Your task to perform on an android device: Go to internet settings Image 0: 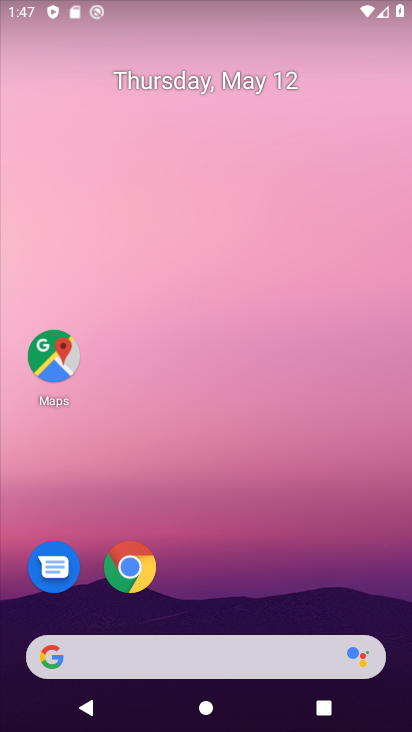
Step 0: drag from (207, 615) to (237, 255)
Your task to perform on an android device: Go to internet settings Image 1: 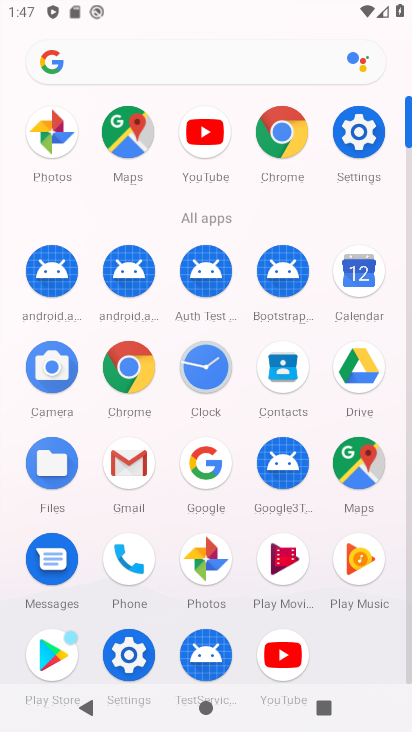
Step 1: click (350, 134)
Your task to perform on an android device: Go to internet settings Image 2: 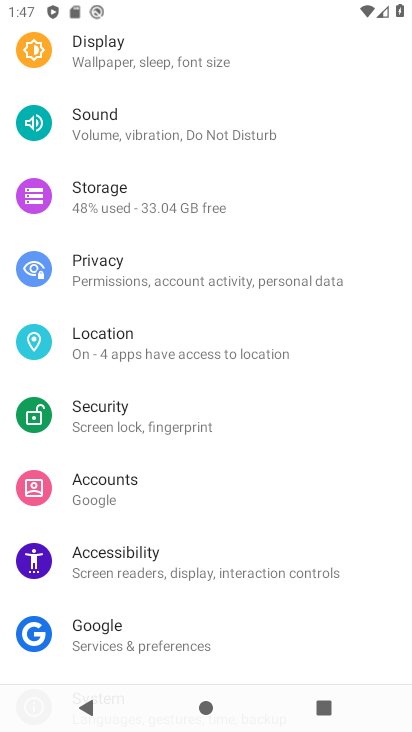
Step 2: drag from (204, 104) to (236, 477)
Your task to perform on an android device: Go to internet settings Image 3: 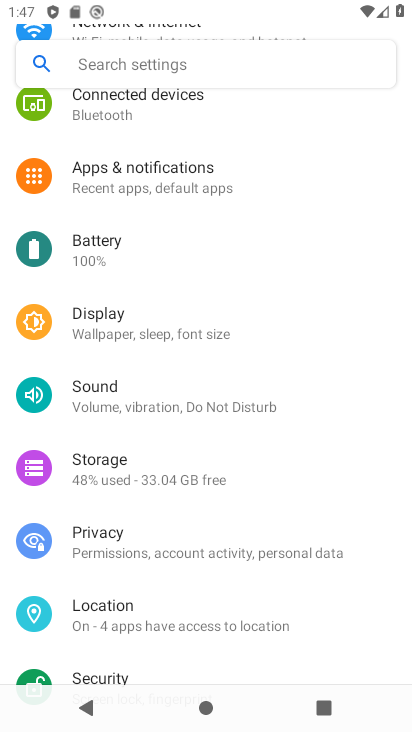
Step 3: drag from (217, 155) to (217, 496)
Your task to perform on an android device: Go to internet settings Image 4: 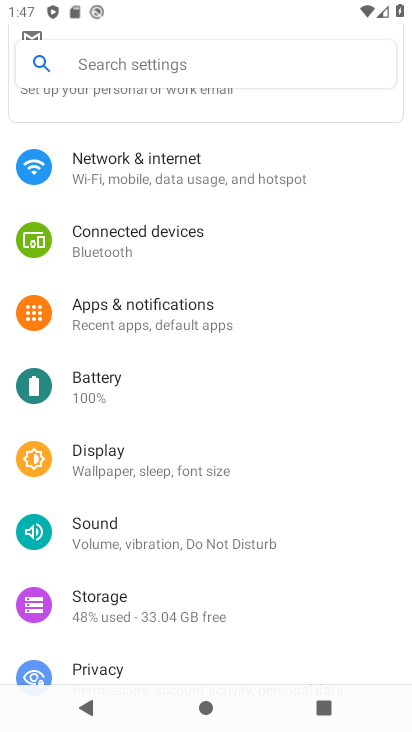
Step 4: click (178, 164)
Your task to perform on an android device: Go to internet settings Image 5: 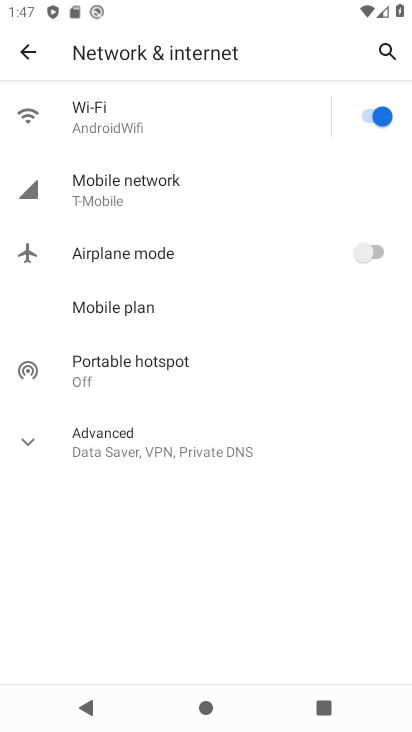
Step 5: click (166, 425)
Your task to perform on an android device: Go to internet settings Image 6: 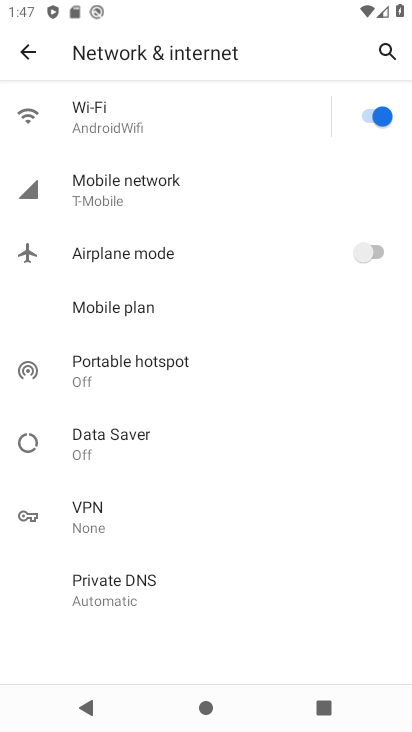
Step 6: task complete